Your task to perform on an android device: Open calendar and show me the second week of next month Image 0: 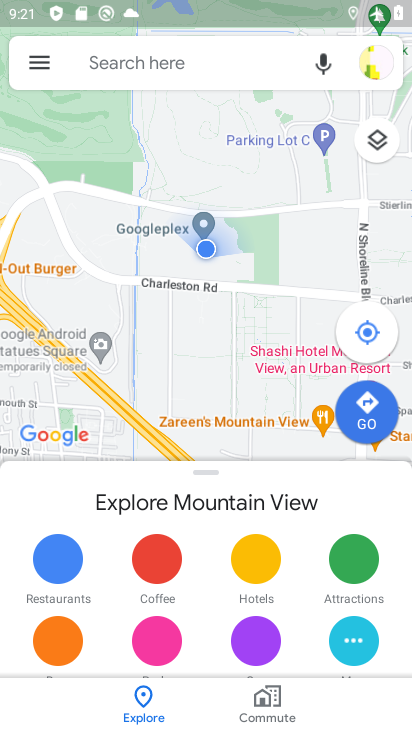
Step 0: press home button
Your task to perform on an android device: Open calendar and show me the second week of next month Image 1: 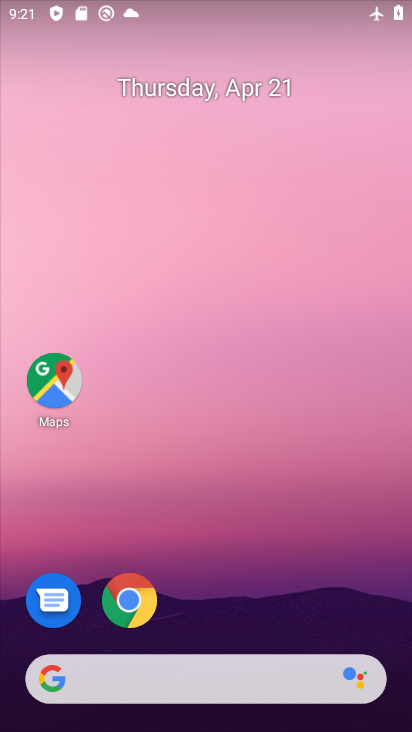
Step 1: drag from (266, 570) to (249, 58)
Your task to perform on an android device: Open calendar and show me the second week of next month Image 2: 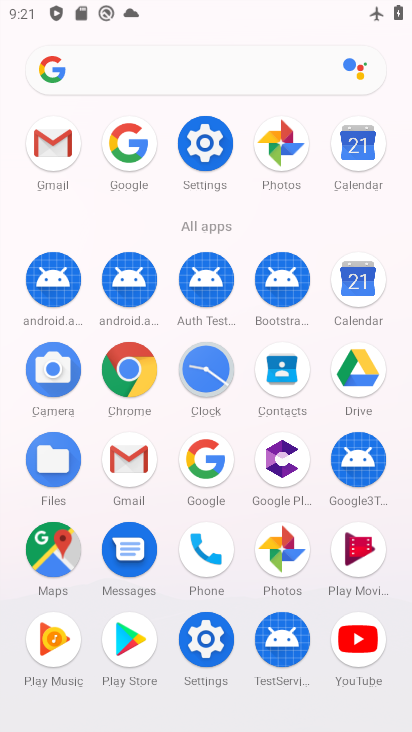
Step 2: click (359, 274)
Your task to perform on an android device: Open calendar and show me the second week of next month Image 3: 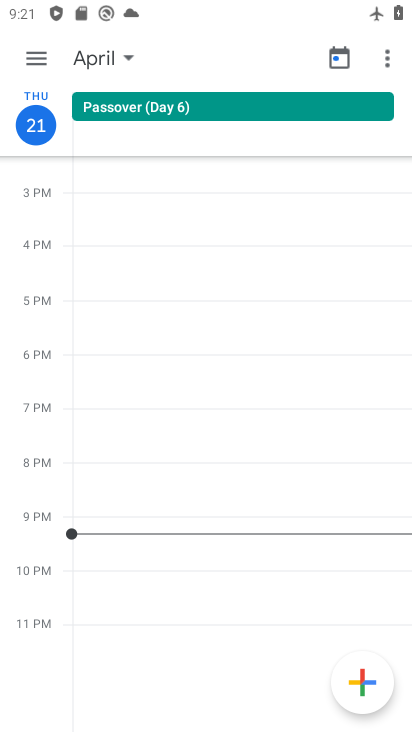
Step 3: click (122, 58)
Your task to perform on an android device: Open calendar and show me the second week of next month Image 4: 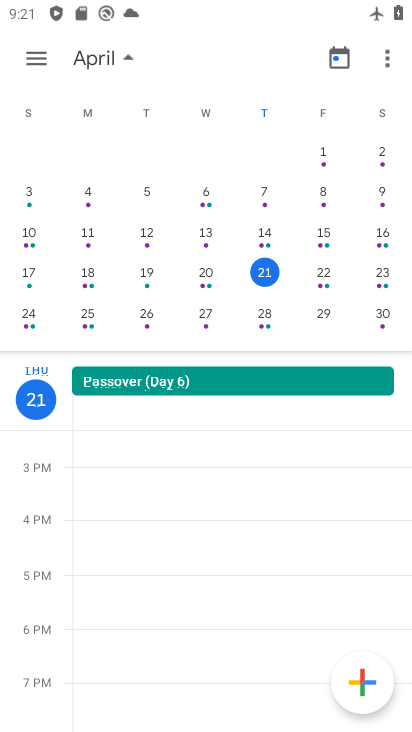
Step 4: drag from (388, 338) to (40, 325)
Your task to perform on an android device: Open calendar and show me the second week of next month Image 5: 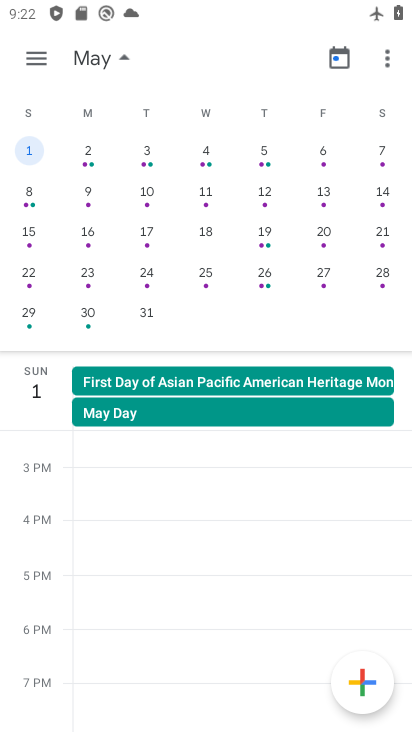
Step 5: click (146, 193)
Your task to perform on an android device: Open calendar and show me the second week of next month Image 6: 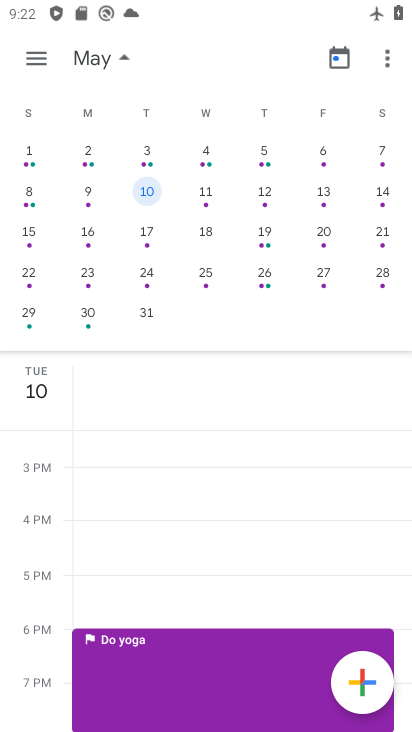
Step 6: task complete